Your task to perform on an android device: Add razer naga to the cart on bestbuy, then select checkout. Image 0: 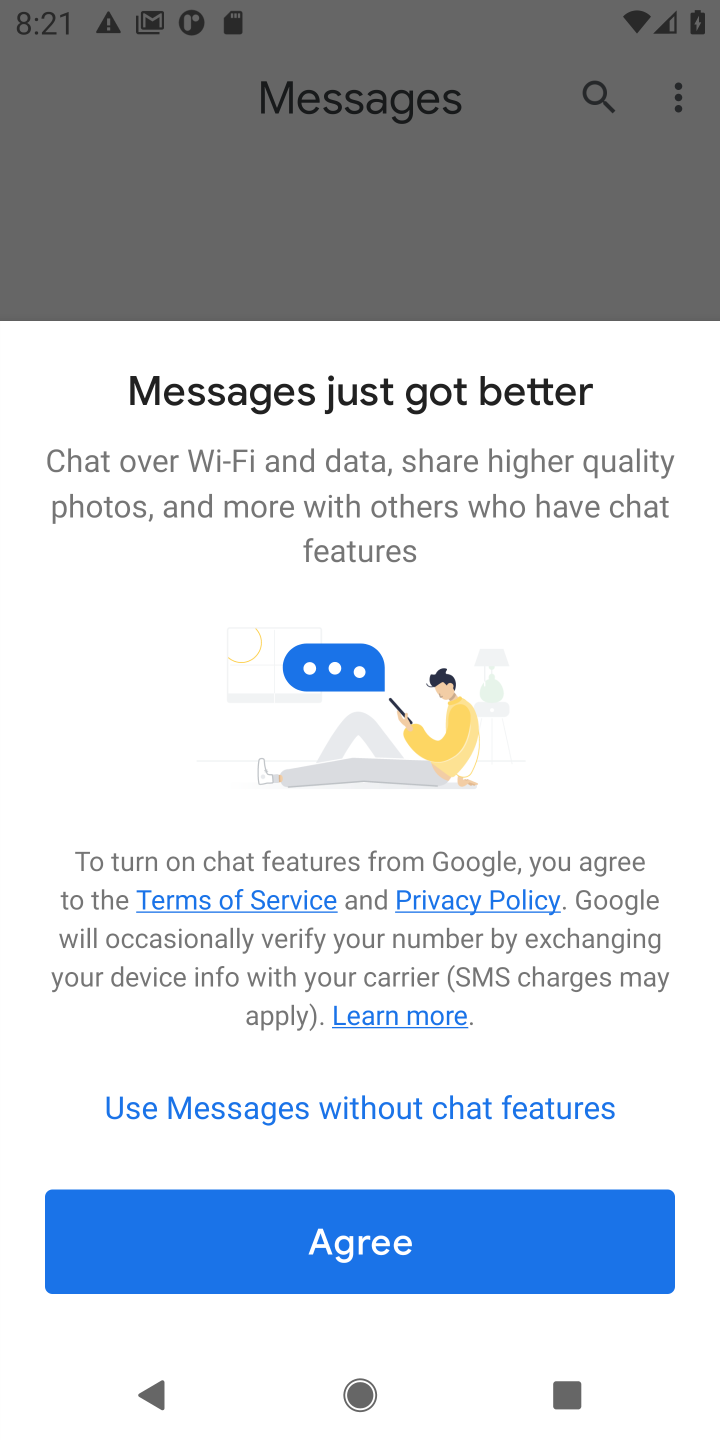
Step 0: press home button
Your task to perform on an android device: Add razer naga to the cart on bestbuy, then select checkout. Image 1: 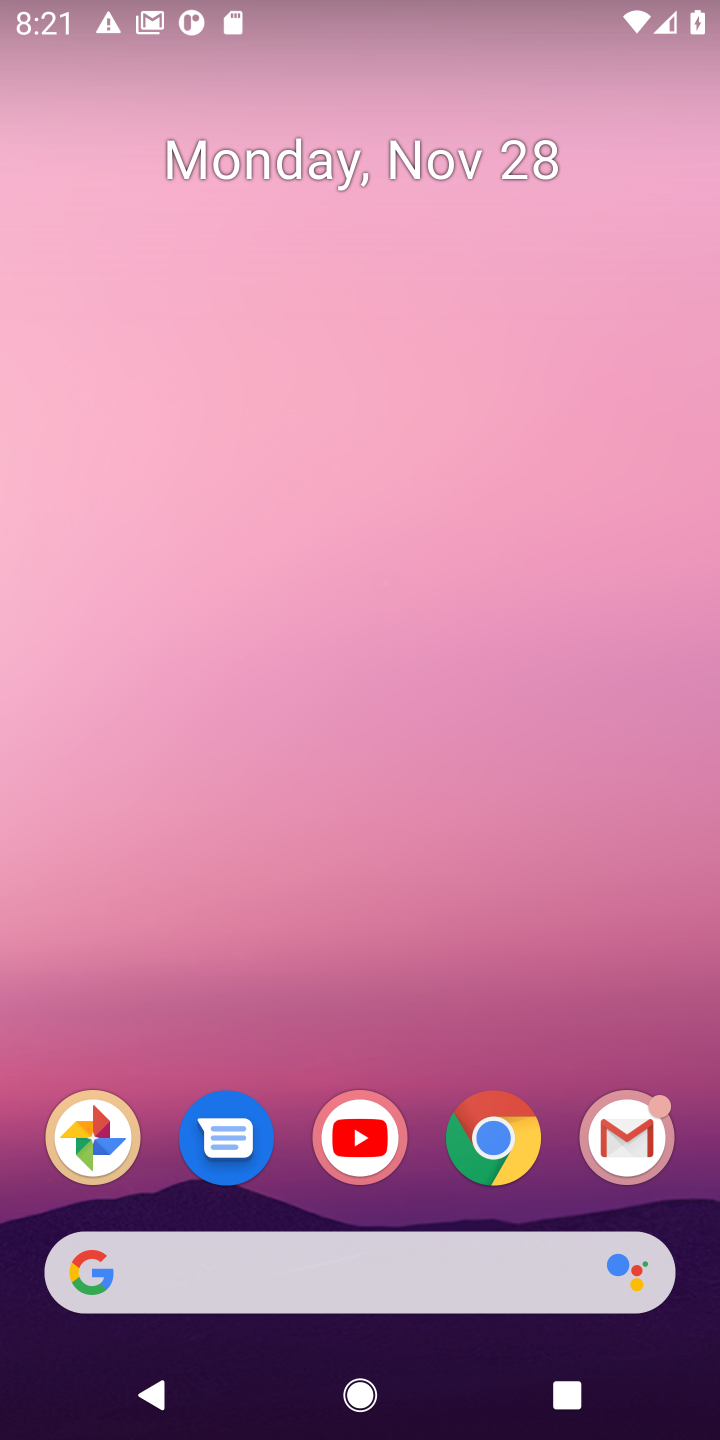
Step 1: click (507, 1141)
Your task to perform on an android device: Add razer naga to the cart on bestbuy, then select checkout. Image 2: 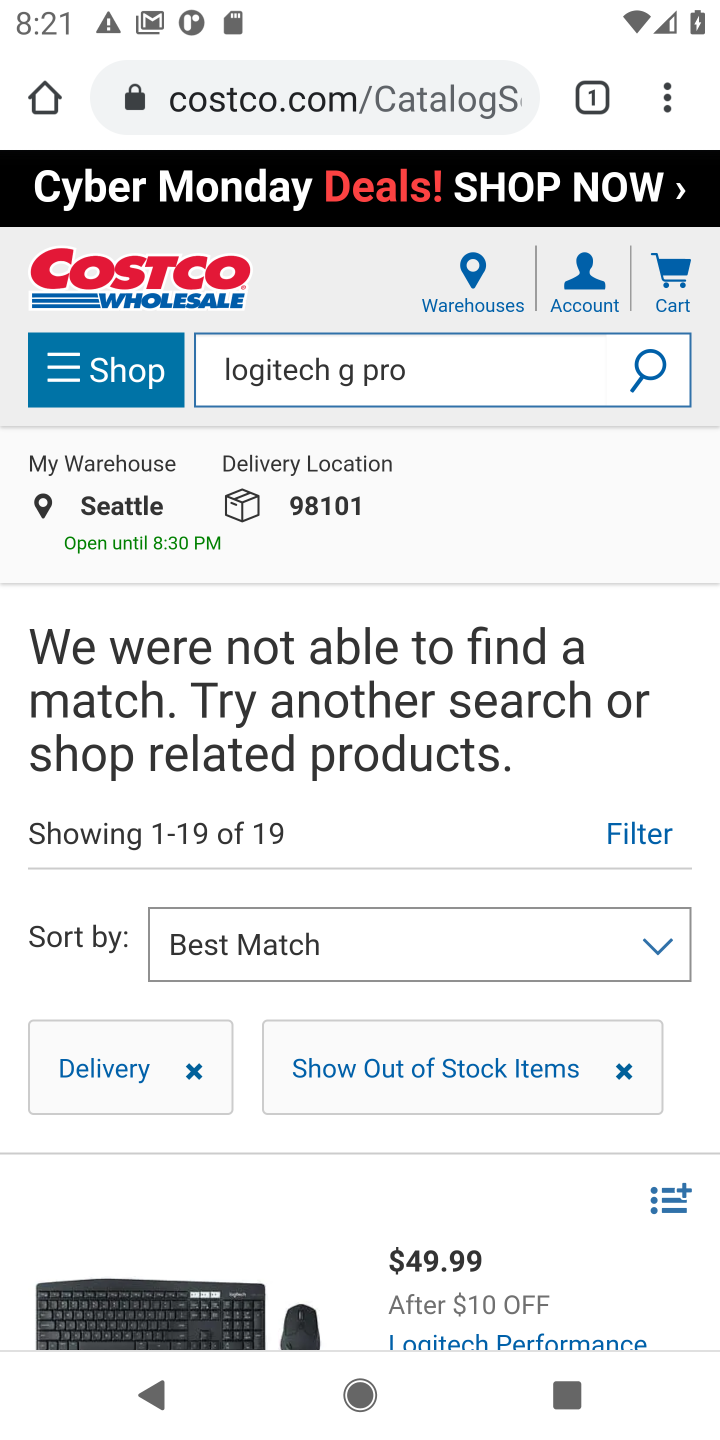
Step 2: click (322, 90)
Your task to perform on an android device: Add razer naga to the cart on bestbuy, then select checkout. Image 3: 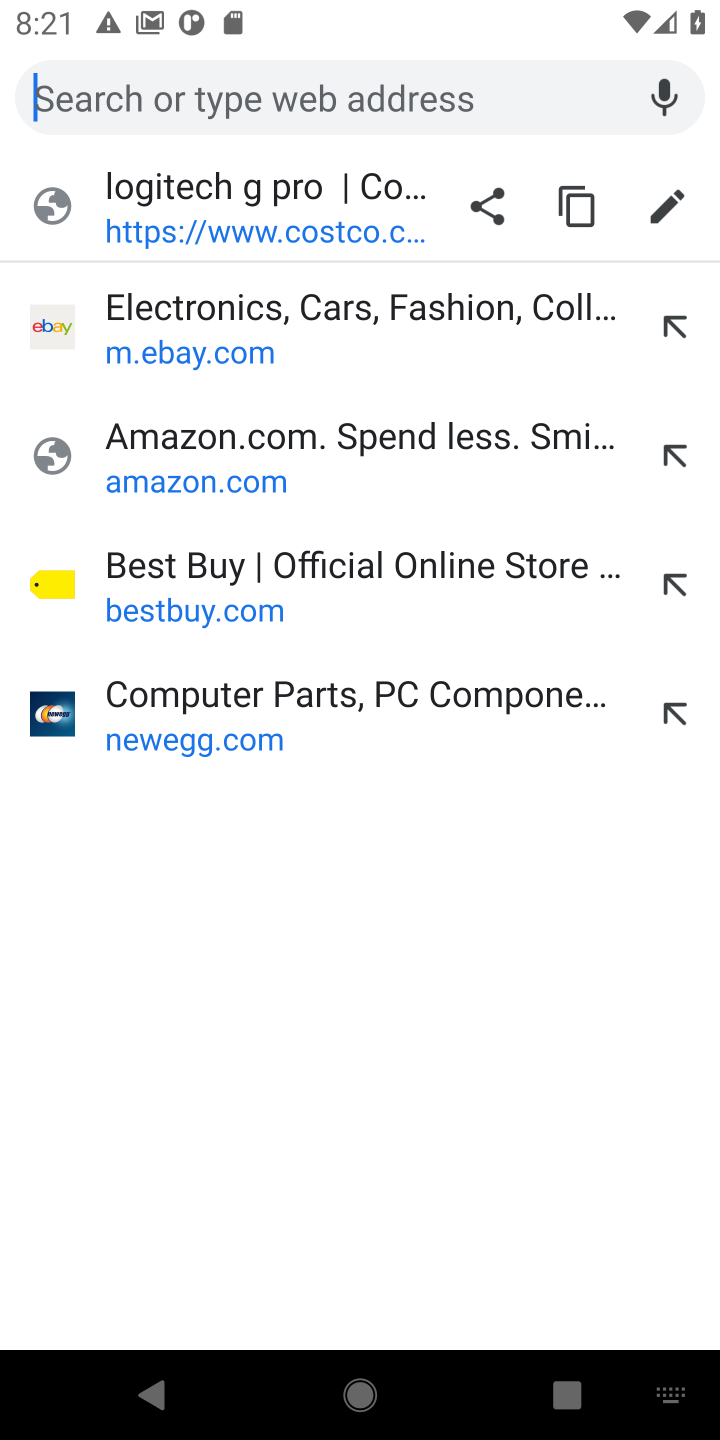
Step 3: click (166, 580)
Your task to perform on an android device: Add razer naga to the cart on bestbuy, then select checkout. Image 4: 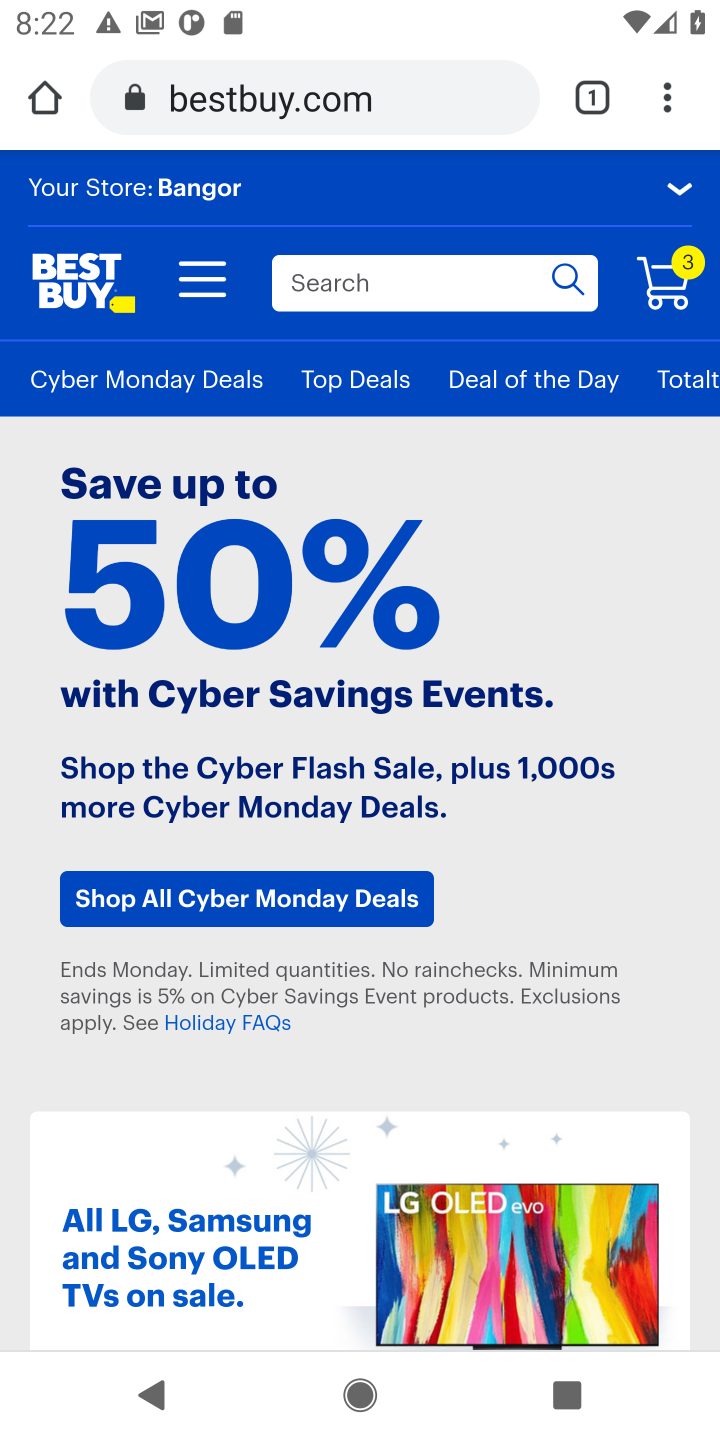
Step 4: click (328, 279)
Your task to perform on an android device: Add razer naga to the cart on bestbuy, then select checkout. Image 5: 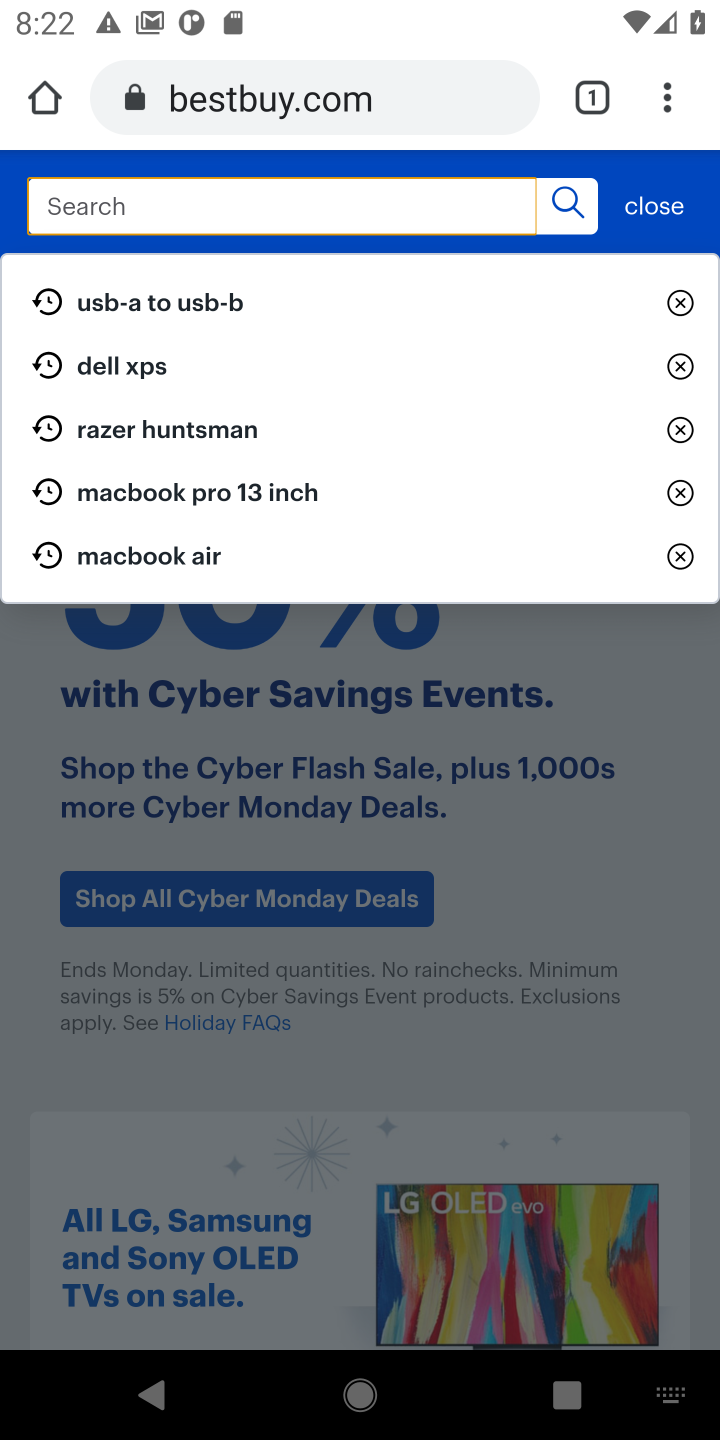
Step 5: type "razer naga"
Your task to perform on an android device: Add razer naga to the cart on bestbuy, then select checkout. Image 6: 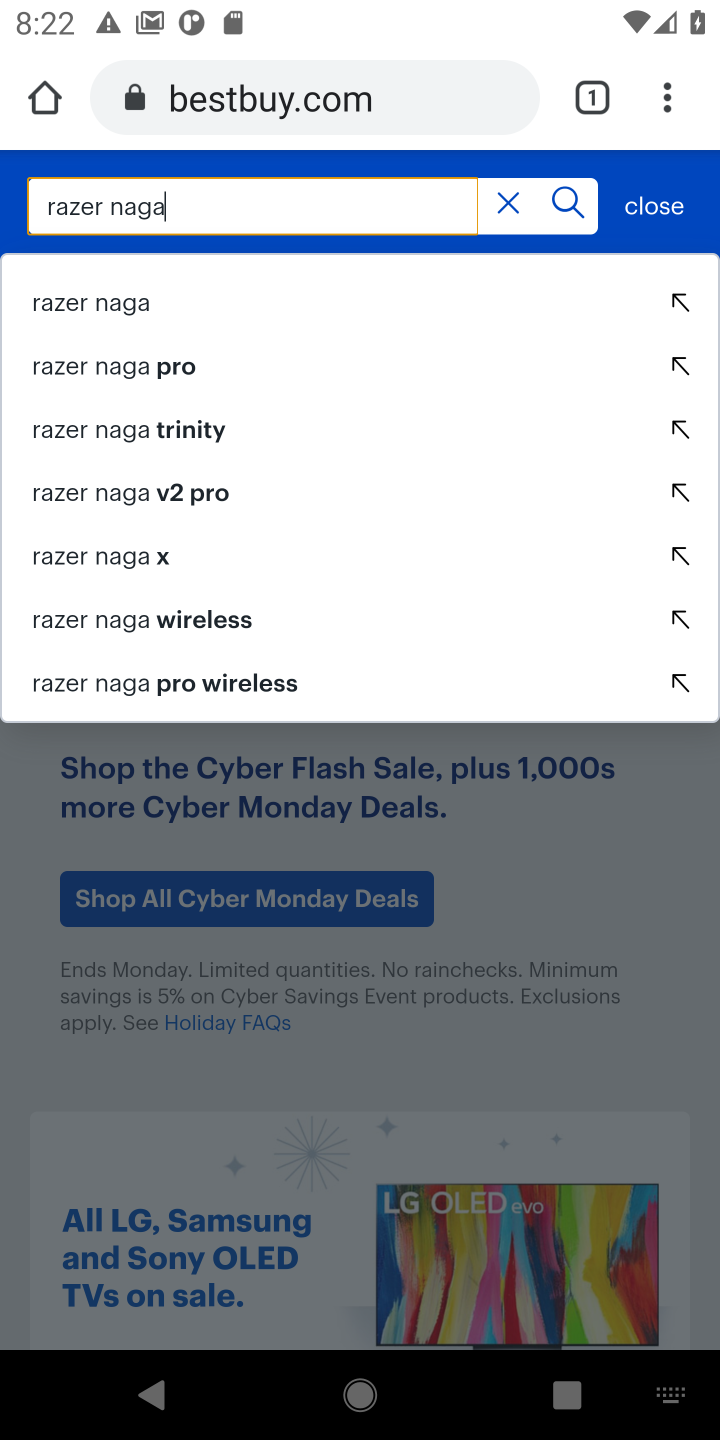
Step 6: click (105, 307)
Your task to perform on an android device: Add razer naga to the cart on bestbuy, then select checkout. Image 7: 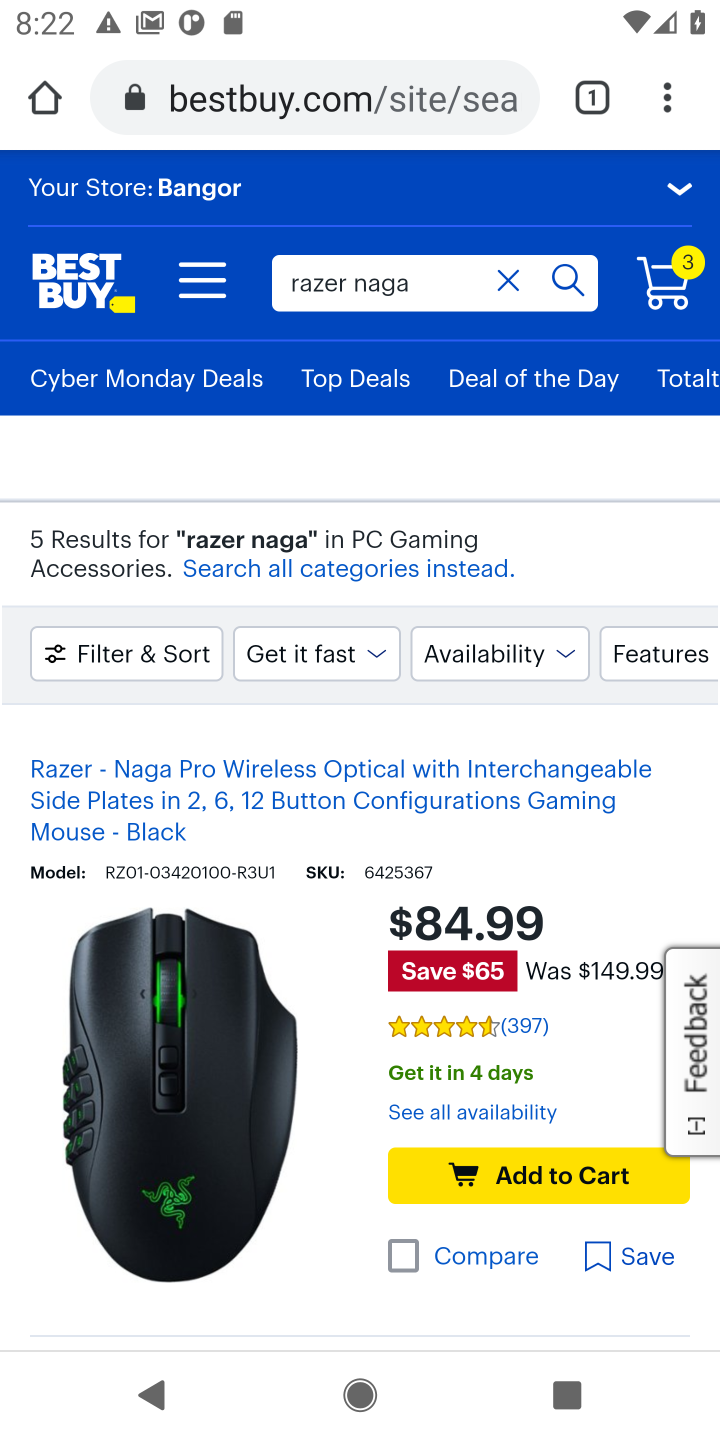
Step 7: click (548, 1170)
Your task to perform on an android device: Add razer naga to the cart on bestbuy, then select checkout. Image 8: 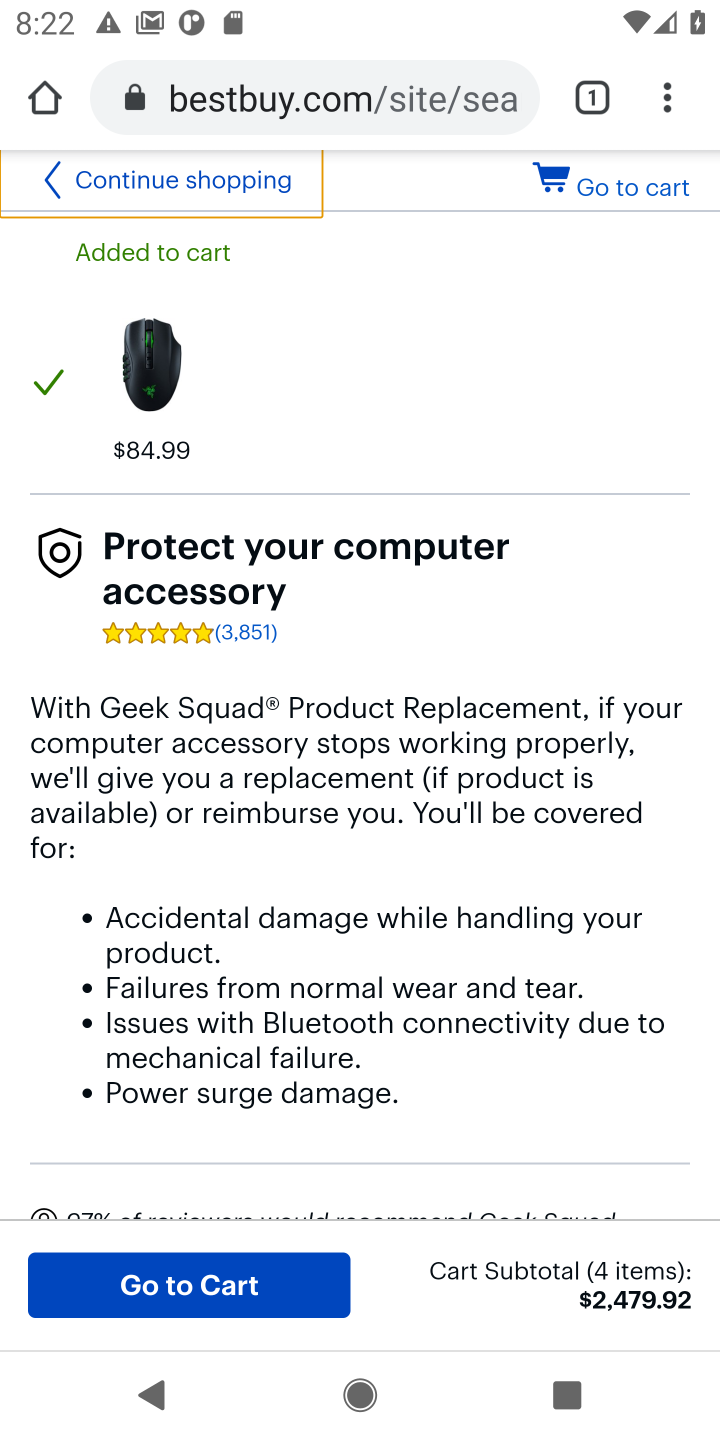
Step 8: click (635, 196)
Your task to perform on an android device: Add razer naga to the cart on bestbuy, then select checkout. Image 9: 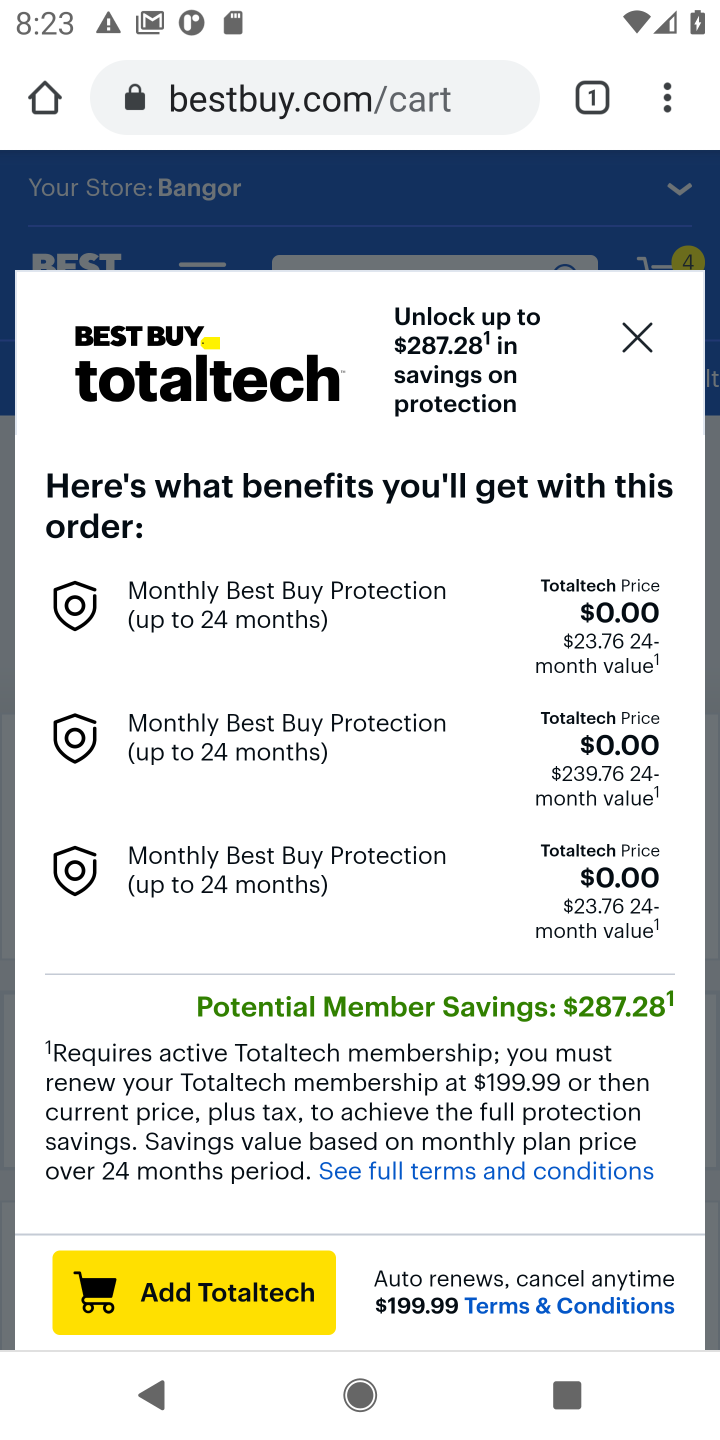
Step 9: click (341, 875)
Your task to perform on an android device: Add razer naga to the cart on bestbuy, then select checkout. Image 10: 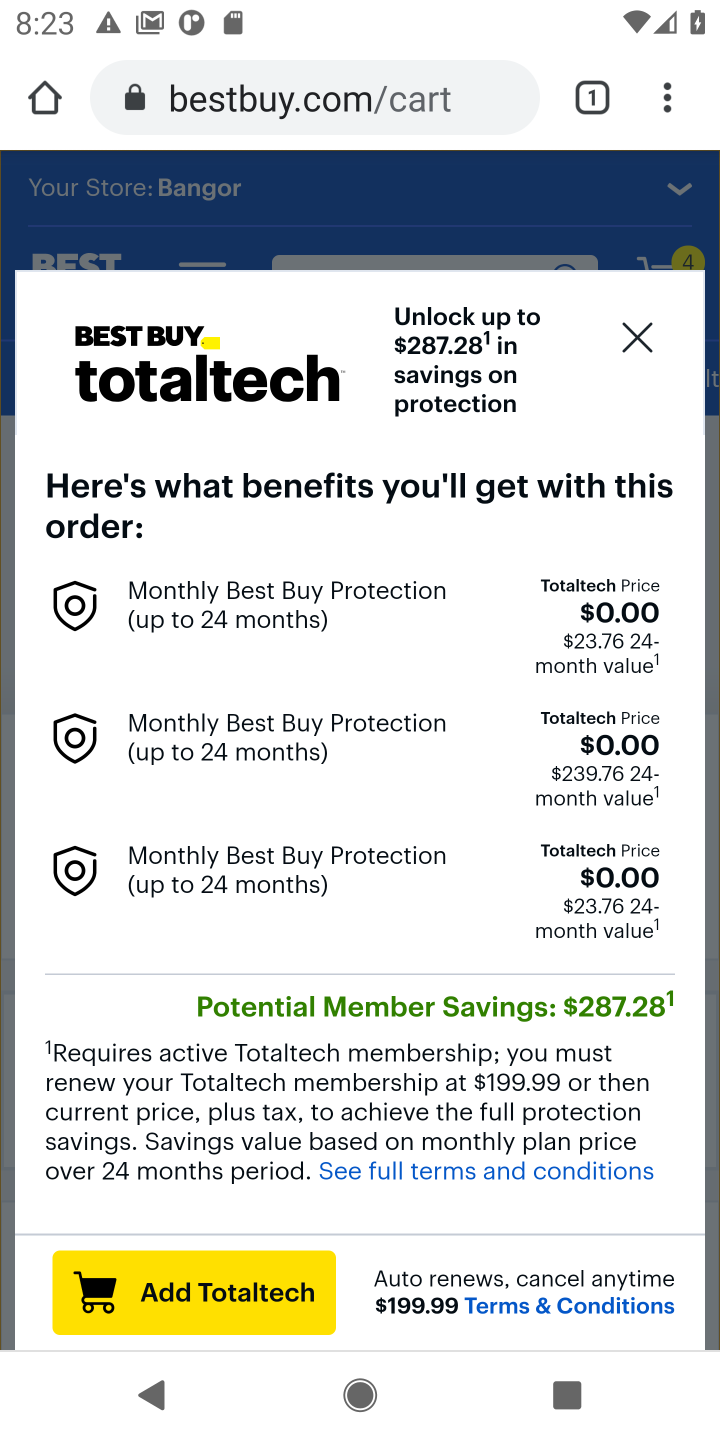
Step 10: click (635, 353)
Your task to perform on an android device: Add razer naga to the cart on bestbuy, then select checkout. Image 11: 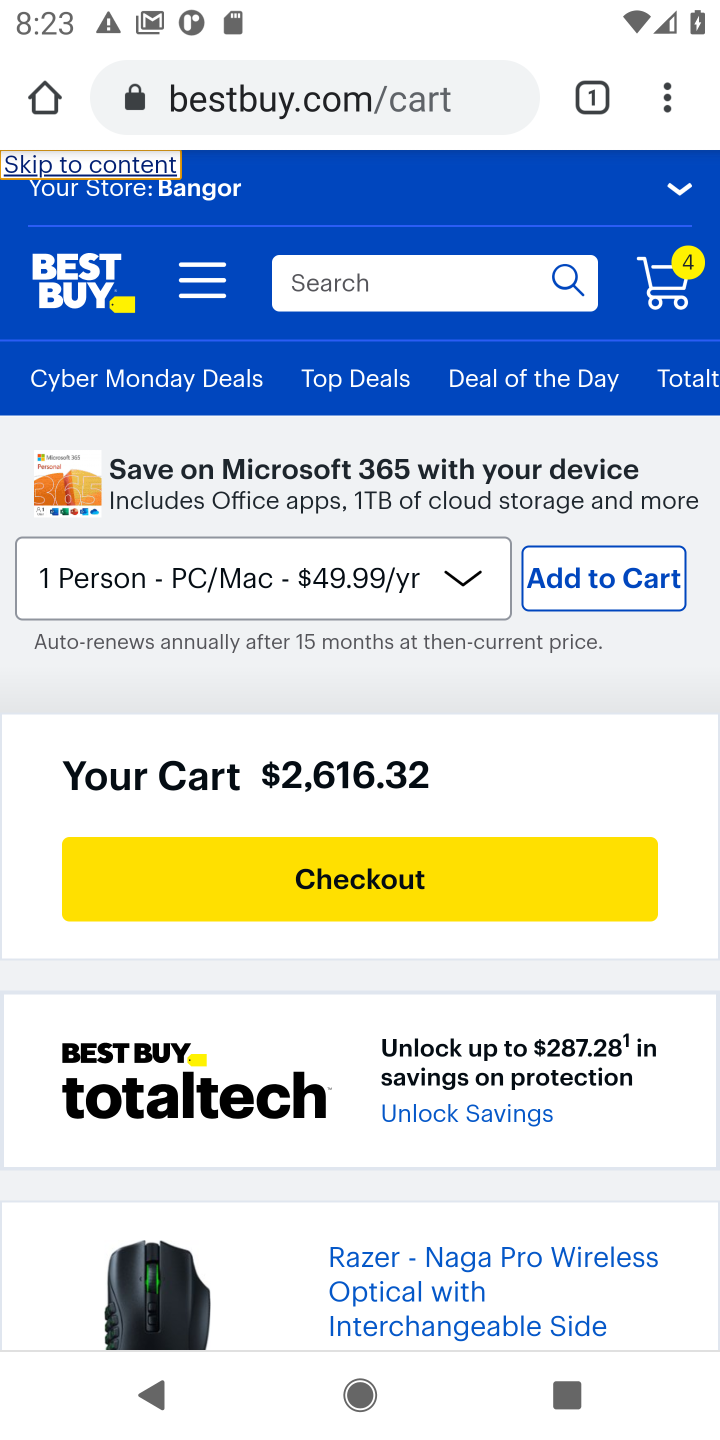
Step 11: click (334, 884)
Your task to perform on an android device: Add razer naga to the cart on bestbuy, then select checkout. Image 12: 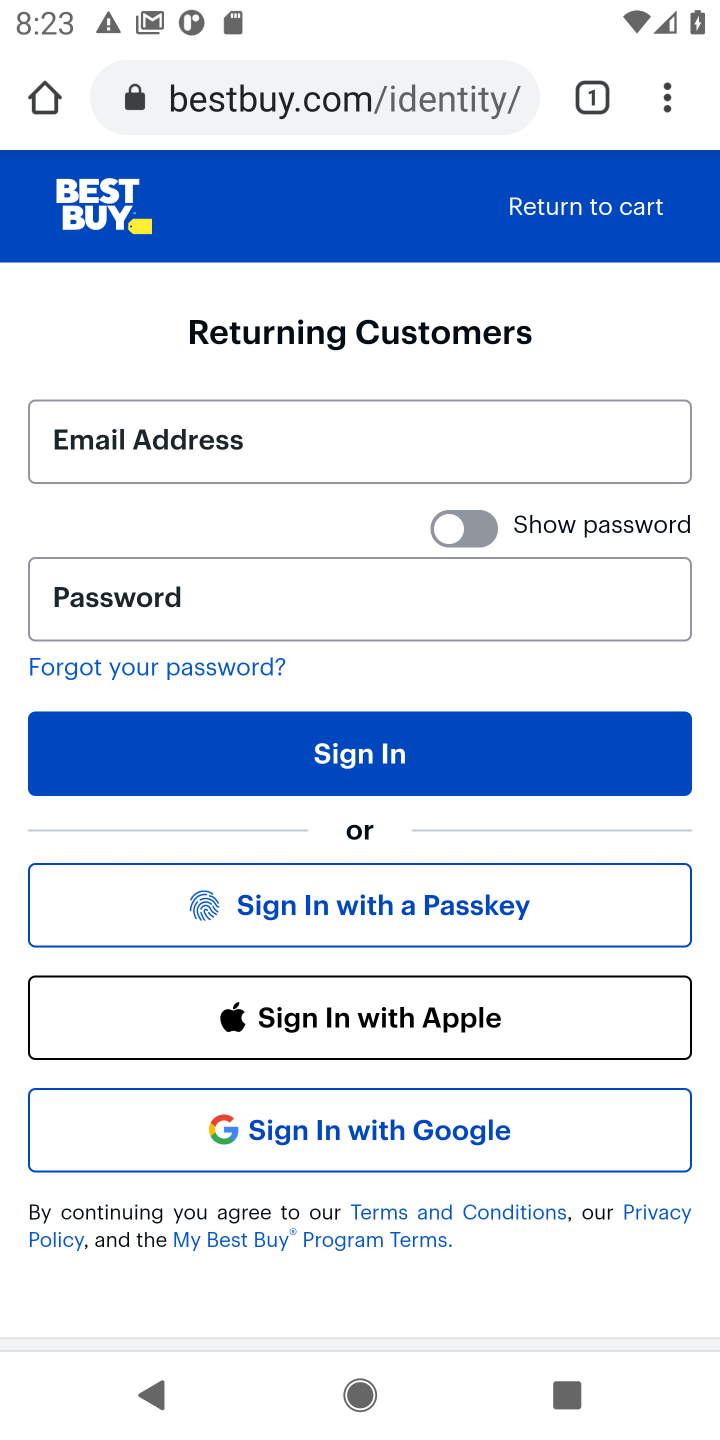
Step 12: task complete